Your task to perform on an android device: install app "Duolingo: language lessons" Image 0: 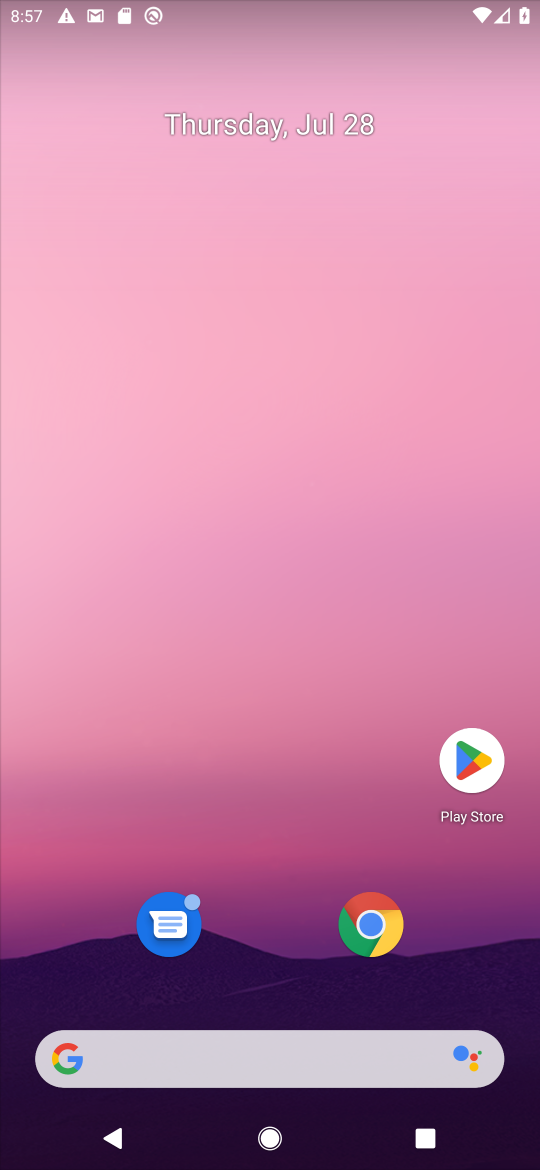
Step 0: press home button
Your task to perform on an android device: install app "Duolingo: language lessons" Image 1: 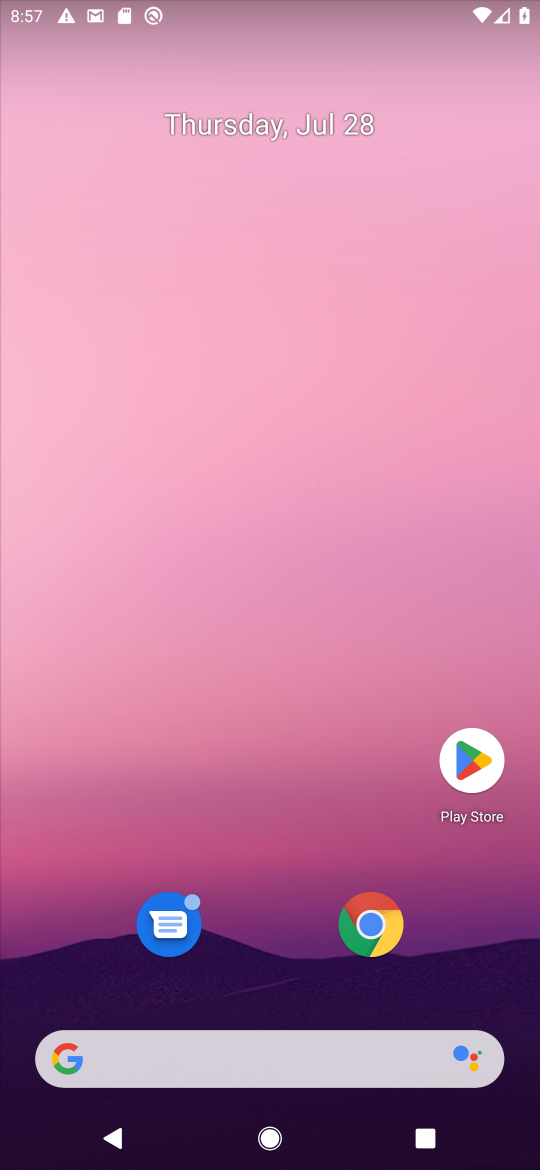
Step 1: click (468, 762)
Your task to perform on an android device: install app "Duolingo: language lessons" Image 2: 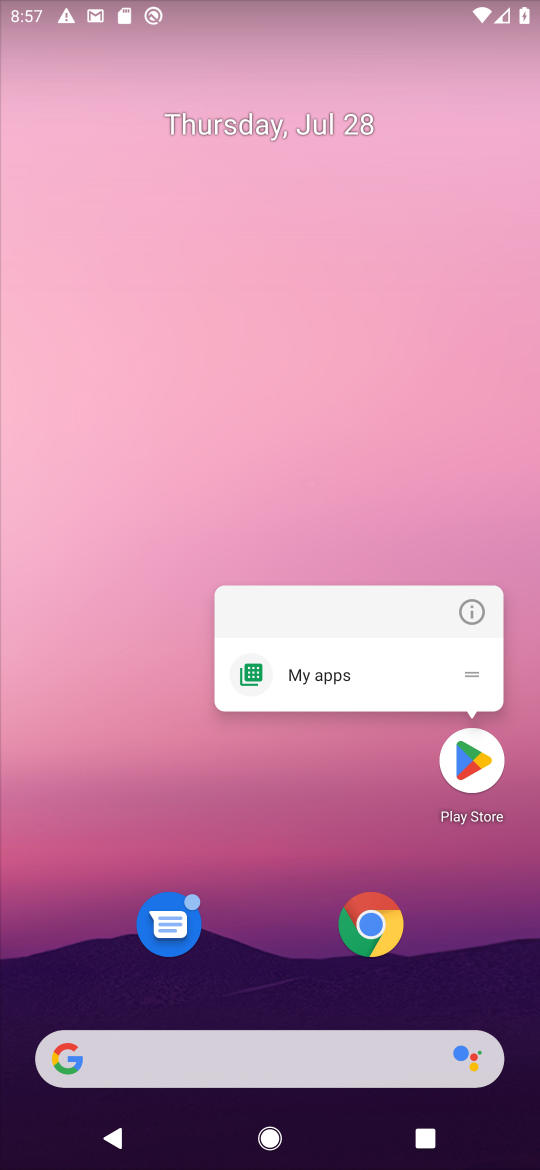
Step 2: click (471, 759)
Your task to perform on an android device: install app "Duolingo: language lessons" Image 3: 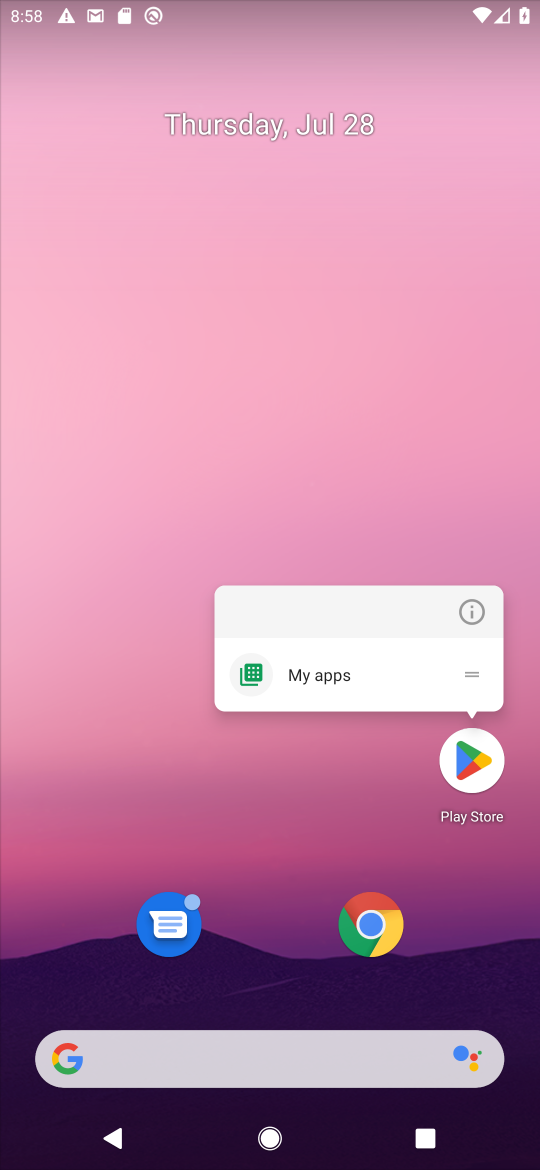
Step 3: click (471, 769)
Your task to perform on an android device: install app "Duolingo: language lessons" Image 4: 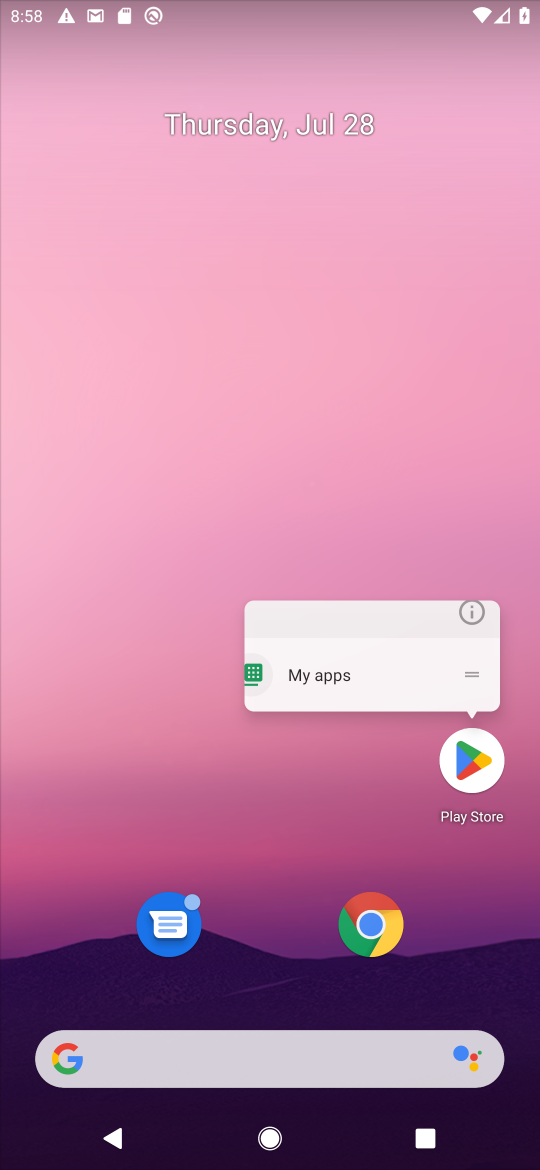
Step 4: click (471, 769)
Your task to perform on an android device: install app "Duolingo: language lessons" Image 5: 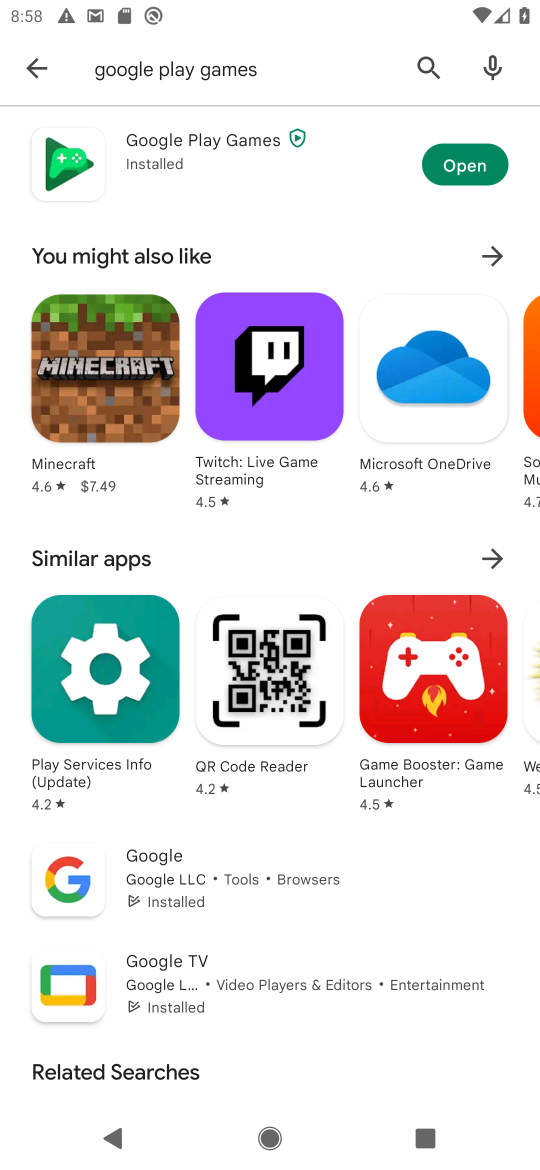
Step 5: click (424, 60)
Your task to perform on an android device: install app "Duolingo: language lessons" Image 6: 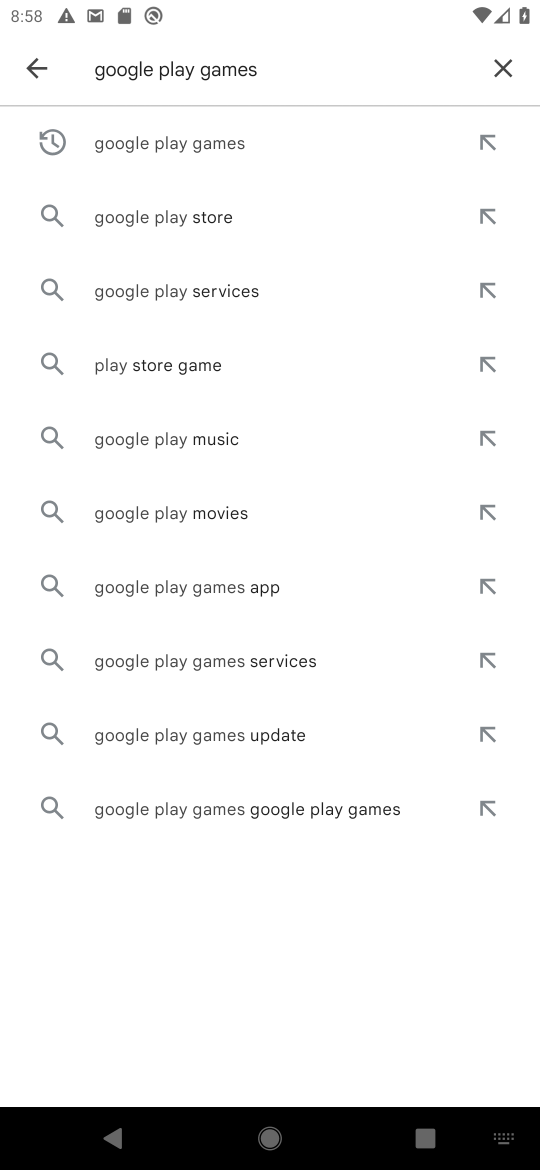
Step 6: click (499, 56)
Your task to perform on an android device: install app "Duolingo: language lessons" Image 7: 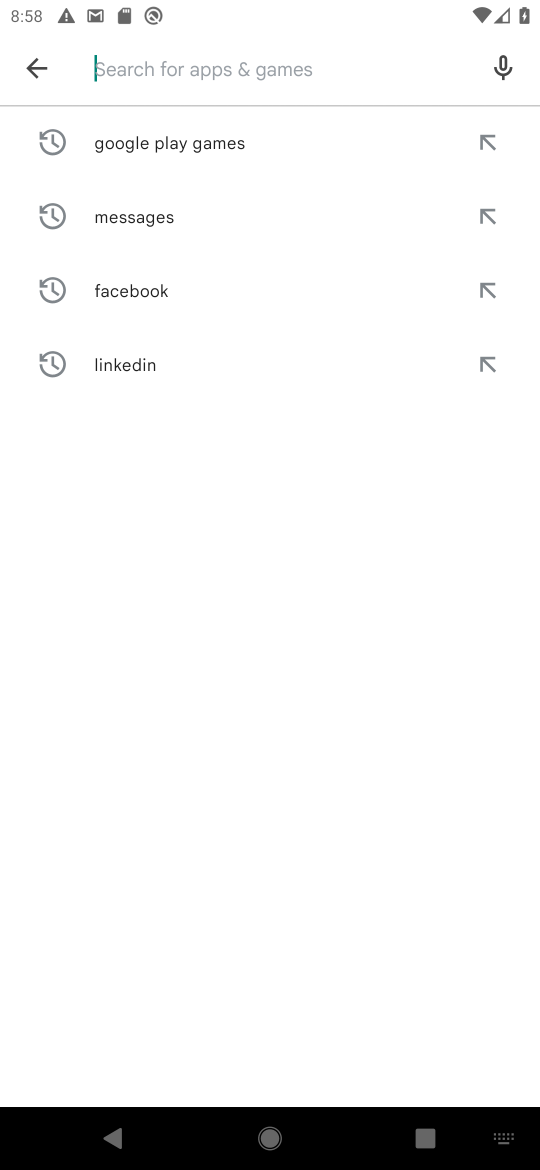
Step 7: type "Duolingo: language lessons"
Your task to perform on an android device: install app "Duolingo: language lessons" Image 8: 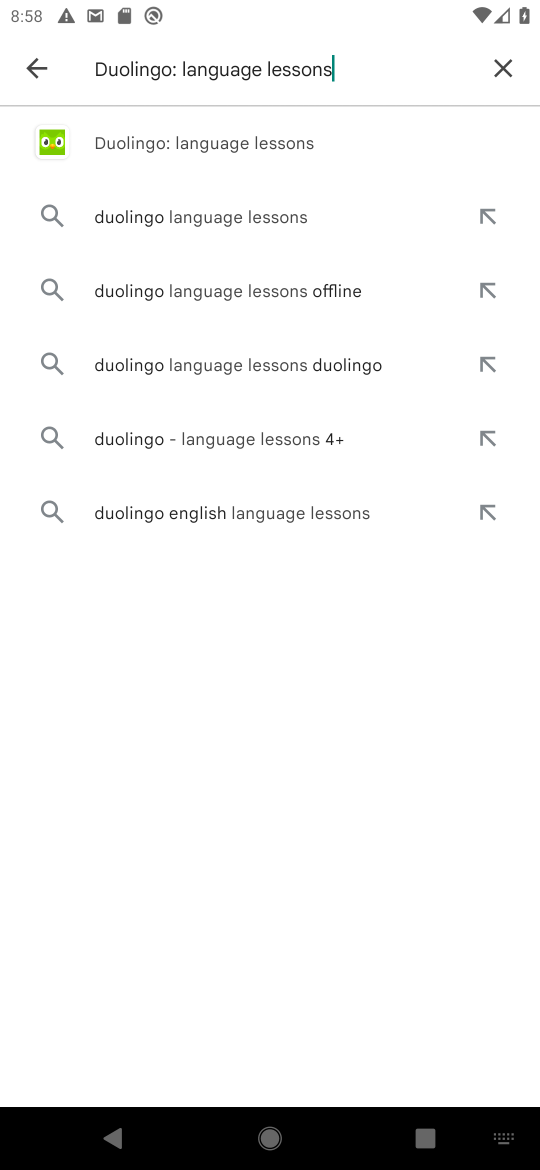
Step 8: click (206, 147)
Your task to perform on an android device: install app "Duolingo: language lessons" Image 9: 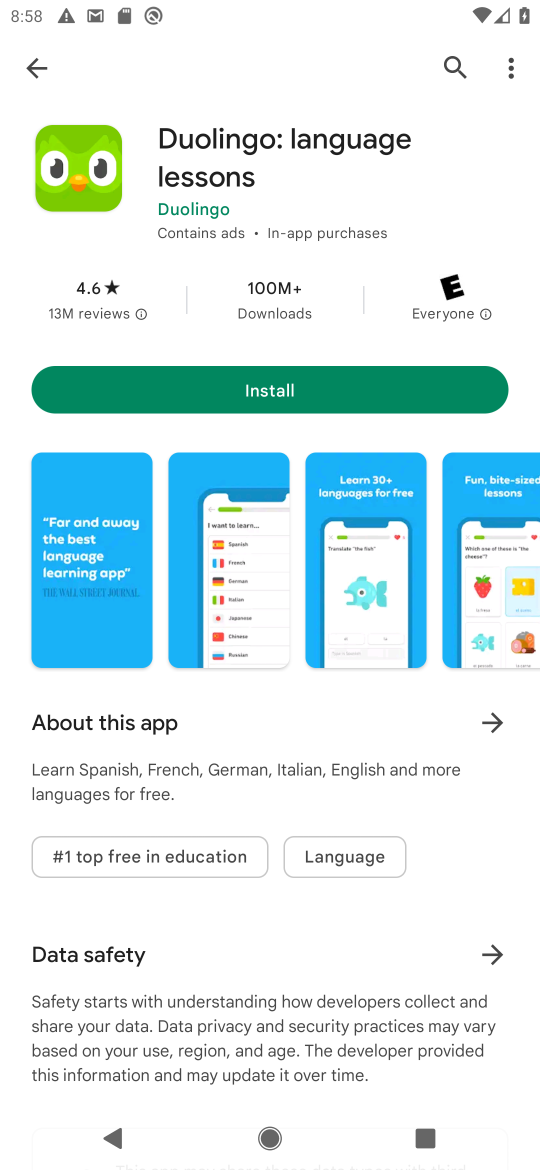
Step 9: click (275, 386)
Your task to perform on an android device: install app "Duolingo: language lessons" Image 10: 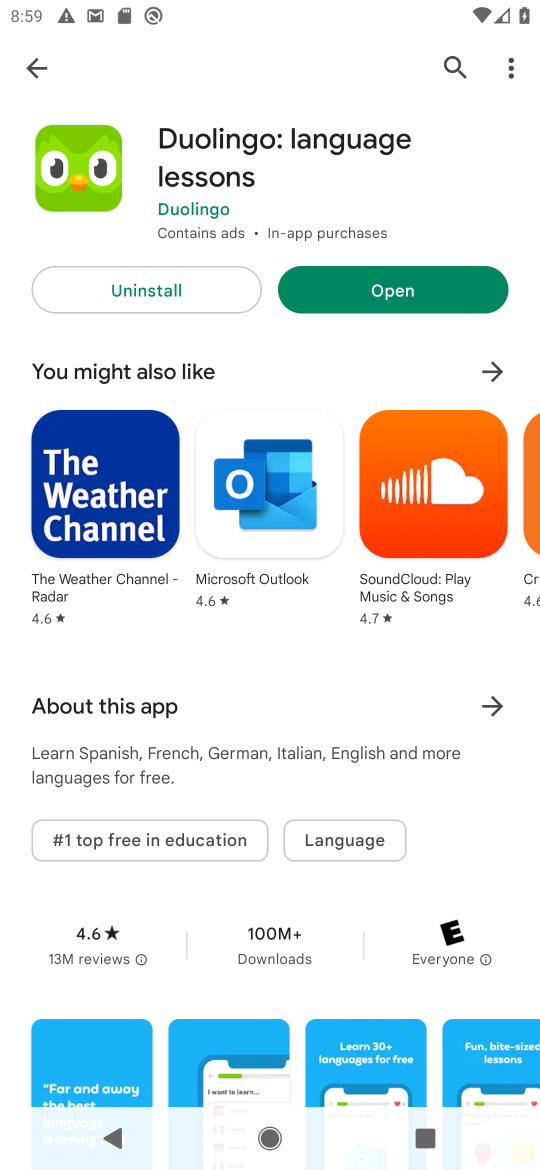
Step 10: task complete